Your task to perform on an android device: change the clock display to analog Image 0: 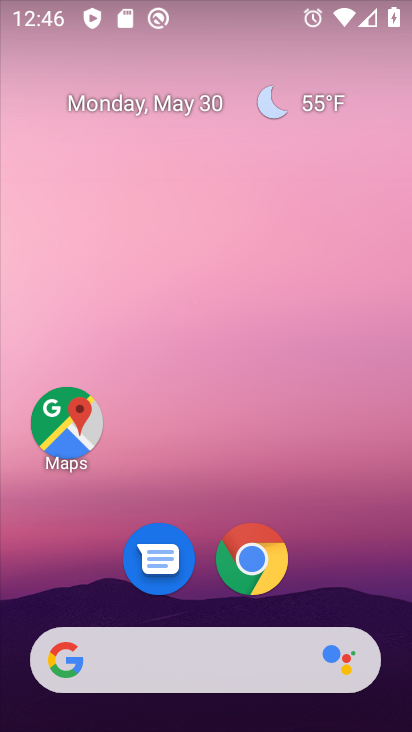
Step 0: drag from (163, 568) to (237, 118)
Your task to perform on an android device: change the clock display to analog Image 1: 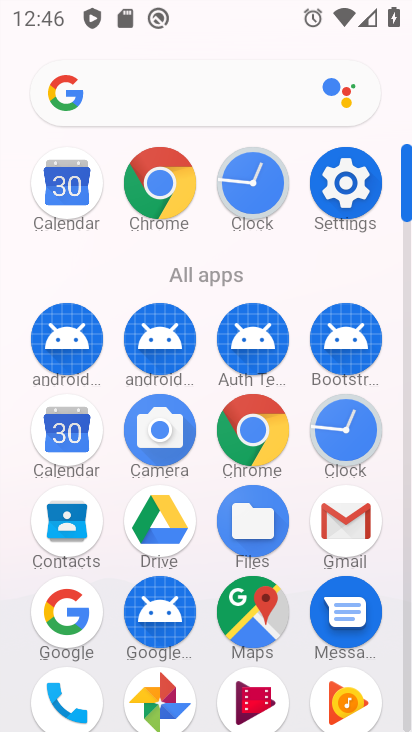
Step 1: click (357, 436)
Your task to perform on an android device: change the clock display to analog Image 2: 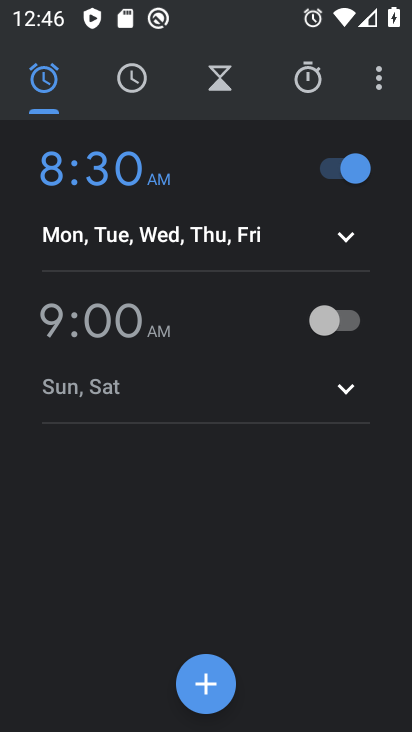
Step 2: click (373, 79)
Your task to perform on an android device: change the clock display to analog Image 3: 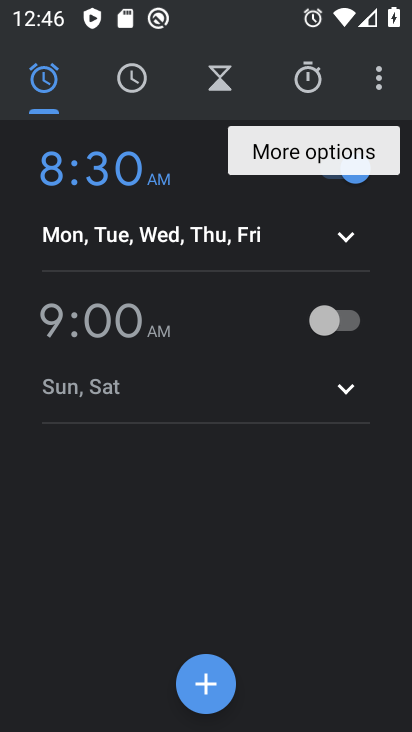
Step 3: click (373, 79)
Your task to perform on an android device: change the clock display to analog Image 4: 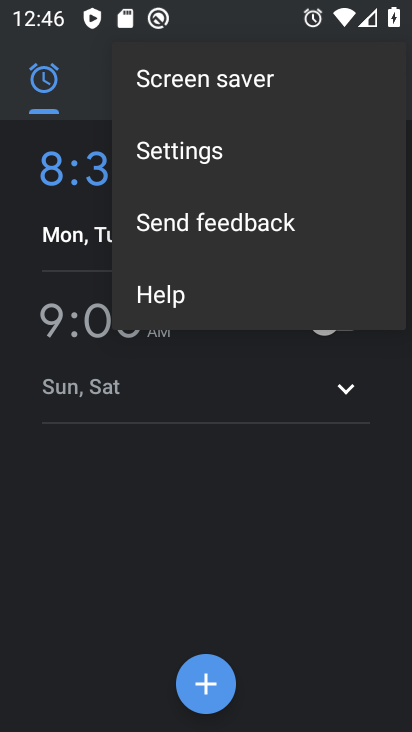
Step 4: click (187, 152)
Your task to perform on an android device: change the clock display to analog Image 5: 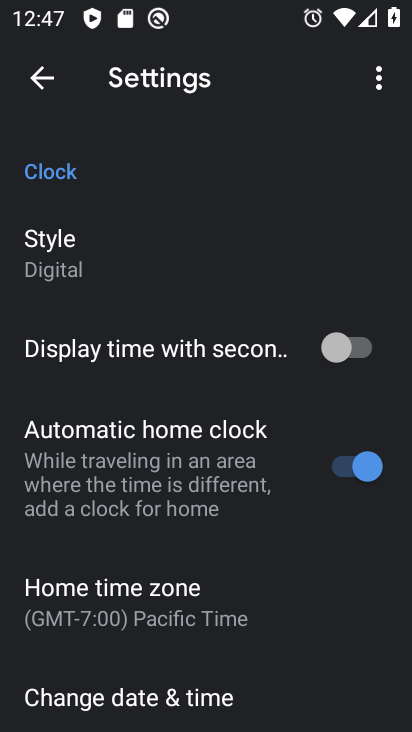
Step 5: click (150, 250)
Your task to perform on an android device: change the clock display to analog Image 6: 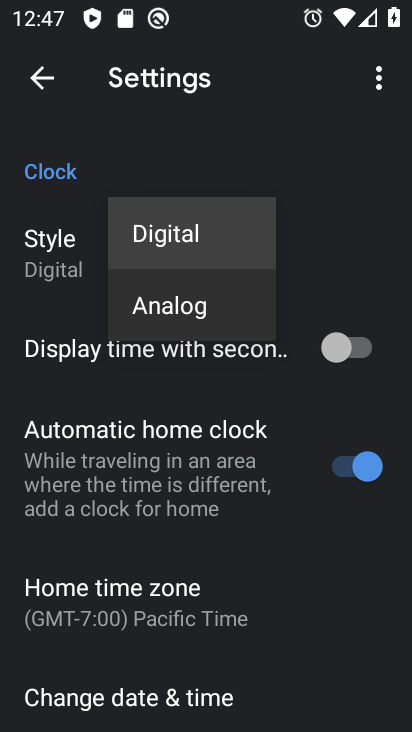
Step 6: click (173, 304)
Your task to perform on an android device: change the clock display to analog Image 7: 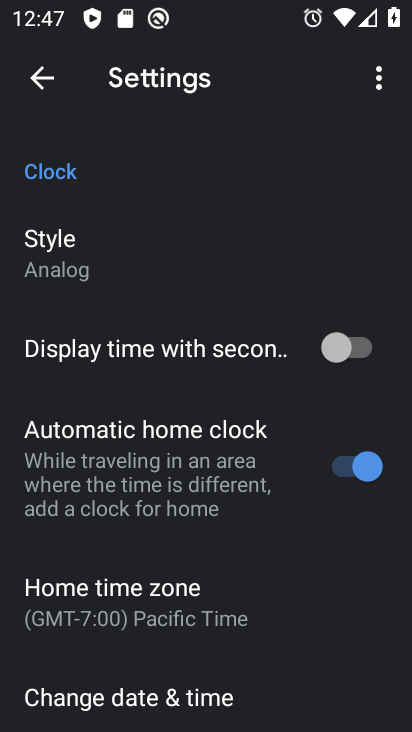
Step 7: task complete